Your task to perform on an android device: find snoozed emails in the gmail app Image 0: 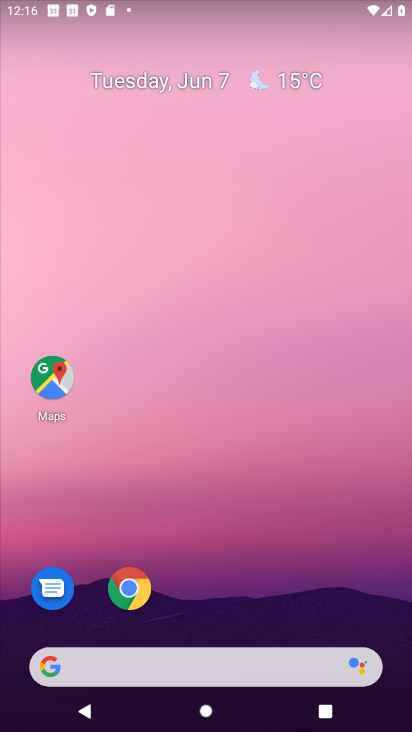
Step 0: drag from (263, 218) to (283, 24)
Your task to perform on an android device: find snoozed emails in the gmail app Image 1: 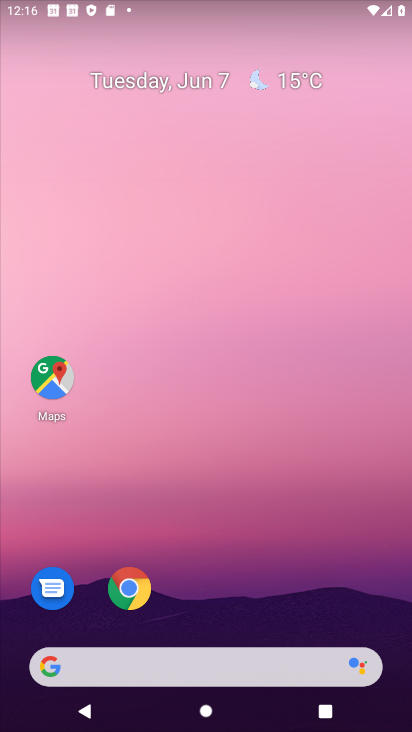
Step 1: drag from (215, 662) to (262, 51)
Your task to perform on an android device: find snoozed emails in the gmail app Image 2: 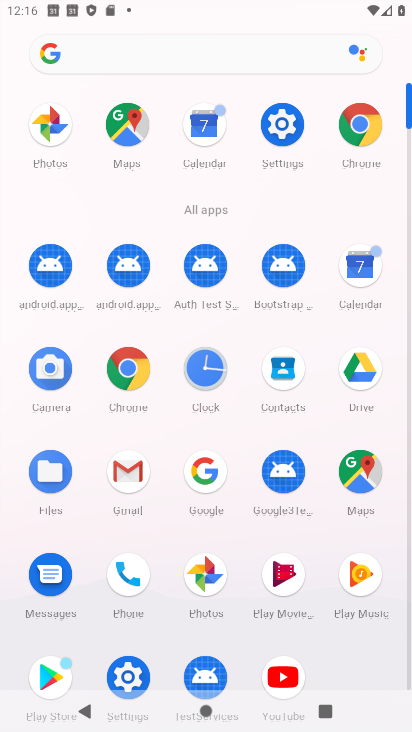
Step 2: click (115, 476)
Your task to perform on an android device: find snoozed emails in the gmail app Image 3: 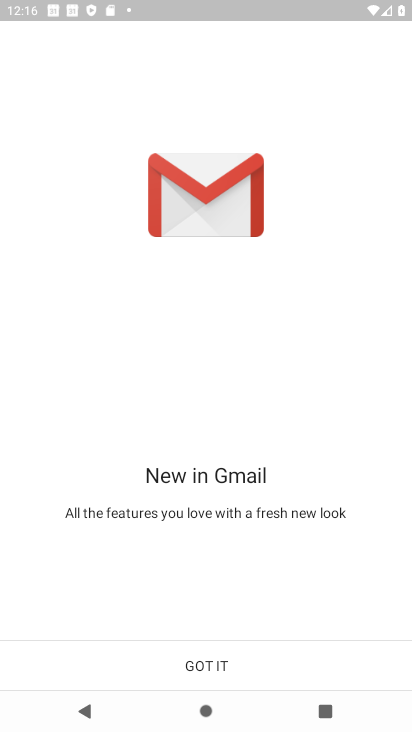
Step 3: click (193, 682)
Your task to perform on an android device: find snoozed emails in the gmail app Image 4: 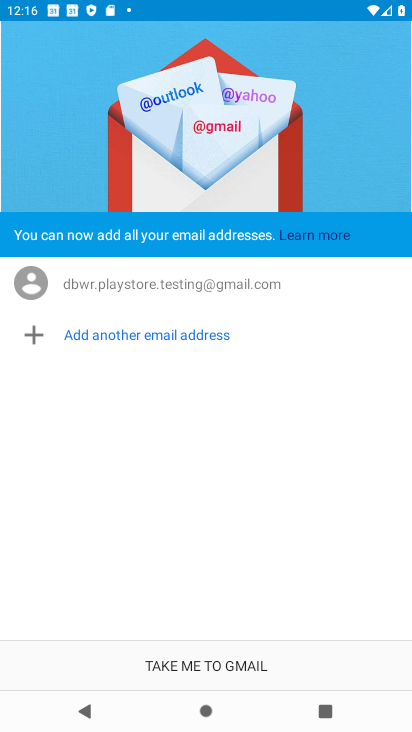
Step 4: click (207, 649)
Your task to perform on an android device: find snoozed emails in the gmail app Image 5: 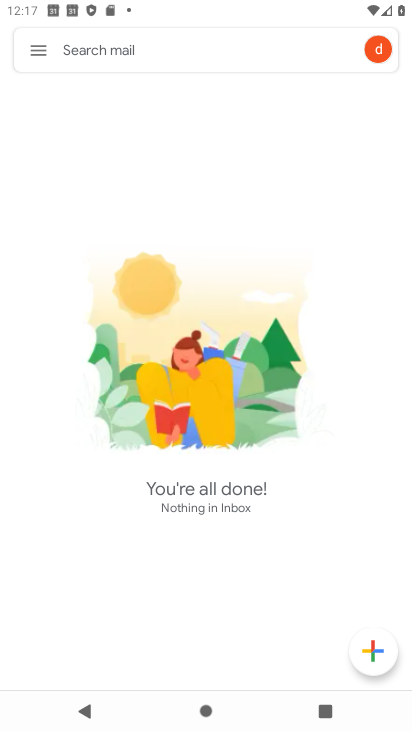
Step 5: click (47, 42)
Your task to perform on an android device: find snoozed emails in the gmail app Image 6: 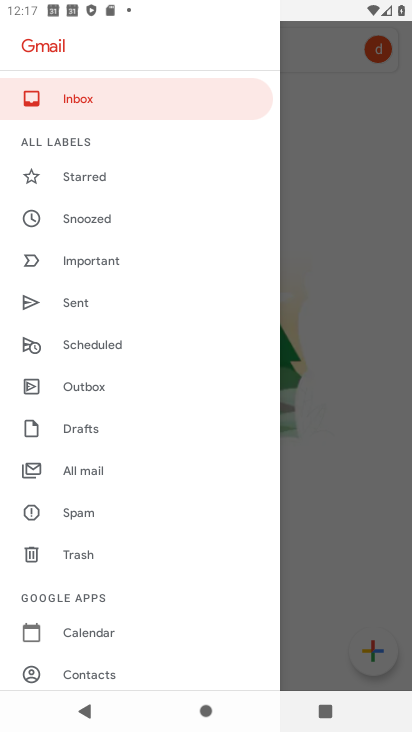
Step 6: click (101, 215)
Your task to perform on an android device: find snoozed emails in the gmail app Image 7: 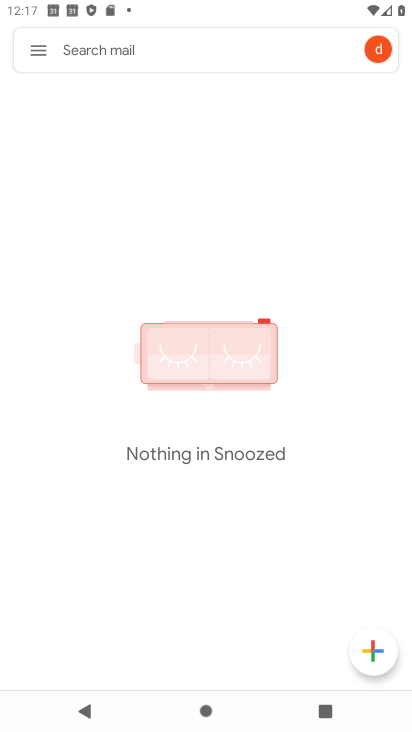
Step 7: task complete